Your task to perform on an android device: open chrome privacy settings Image 0: 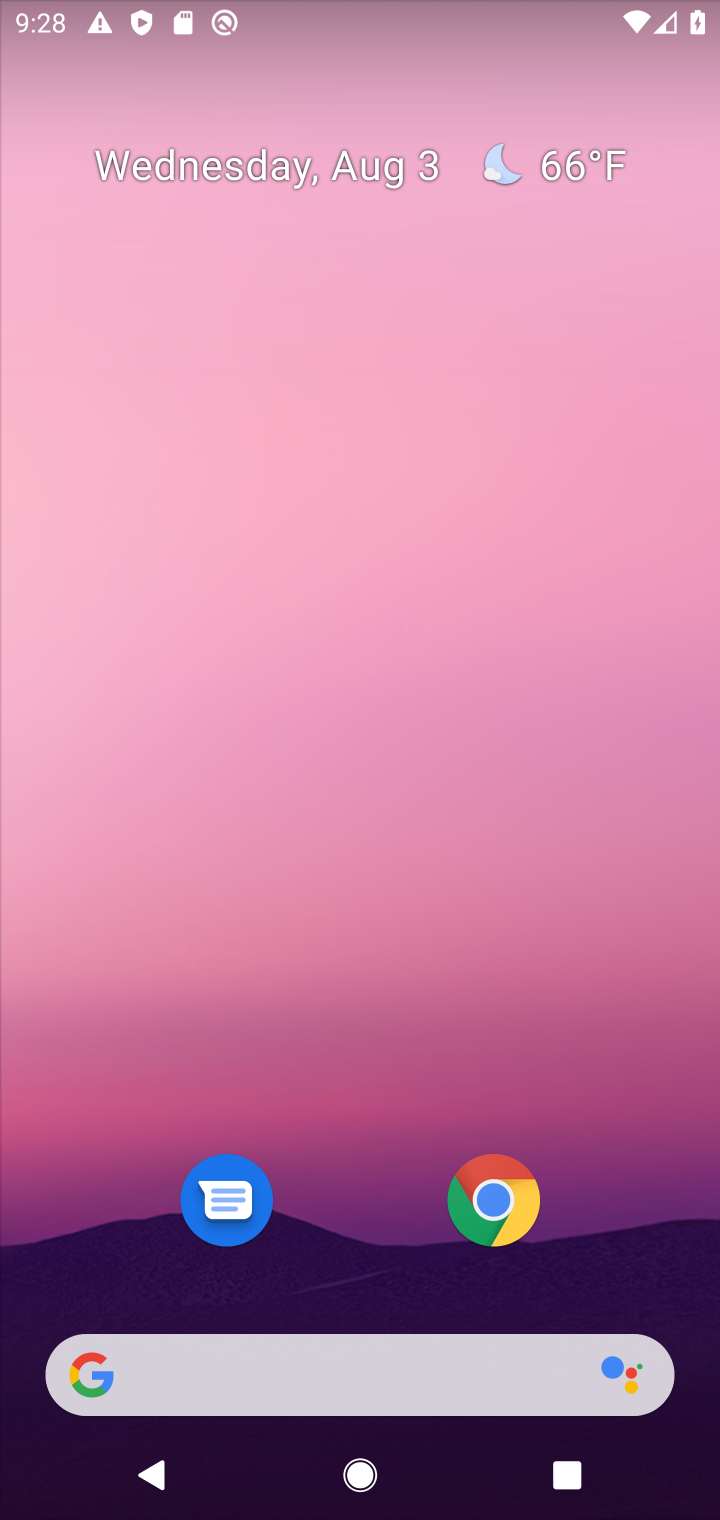
Step 0: click (398, 1335)
Your task to perform on an android device: open chrome privacy settings Image 1: 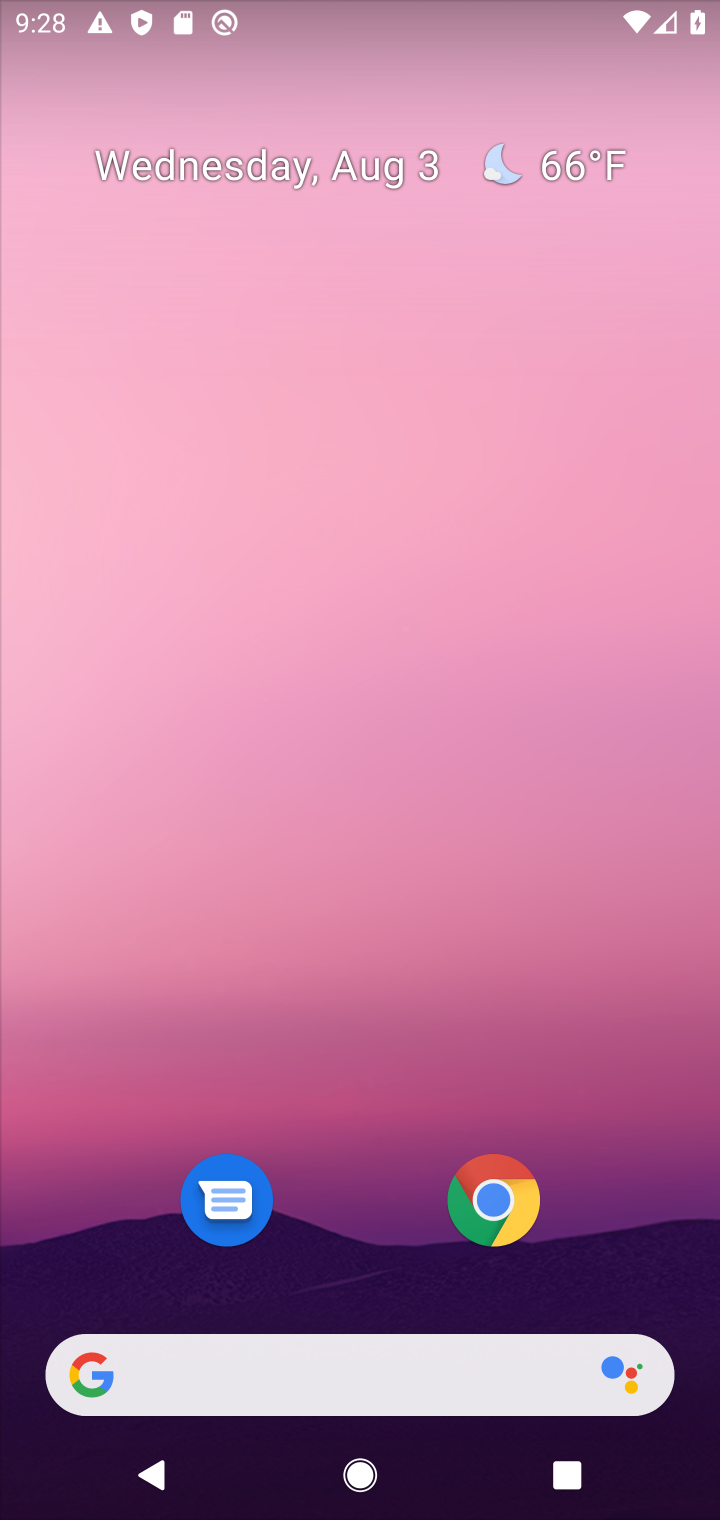
Step 1: drag from (398, 1335) to (381, 466)
Your task to perform on an android device: open chrome privacy settings Image 2: 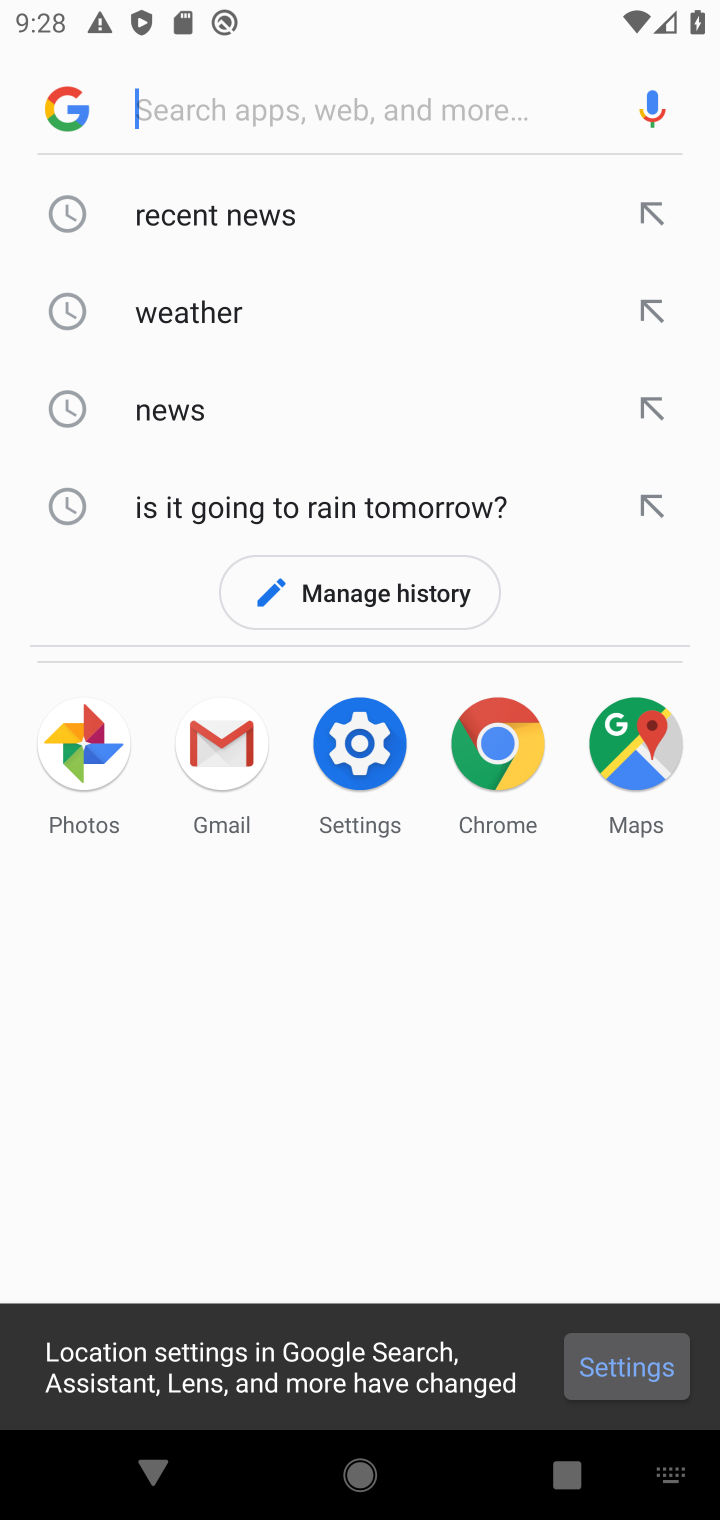
Step 2: click (496, 701)
Your task to perform on an android device: open chrome privacy settings Image 3: 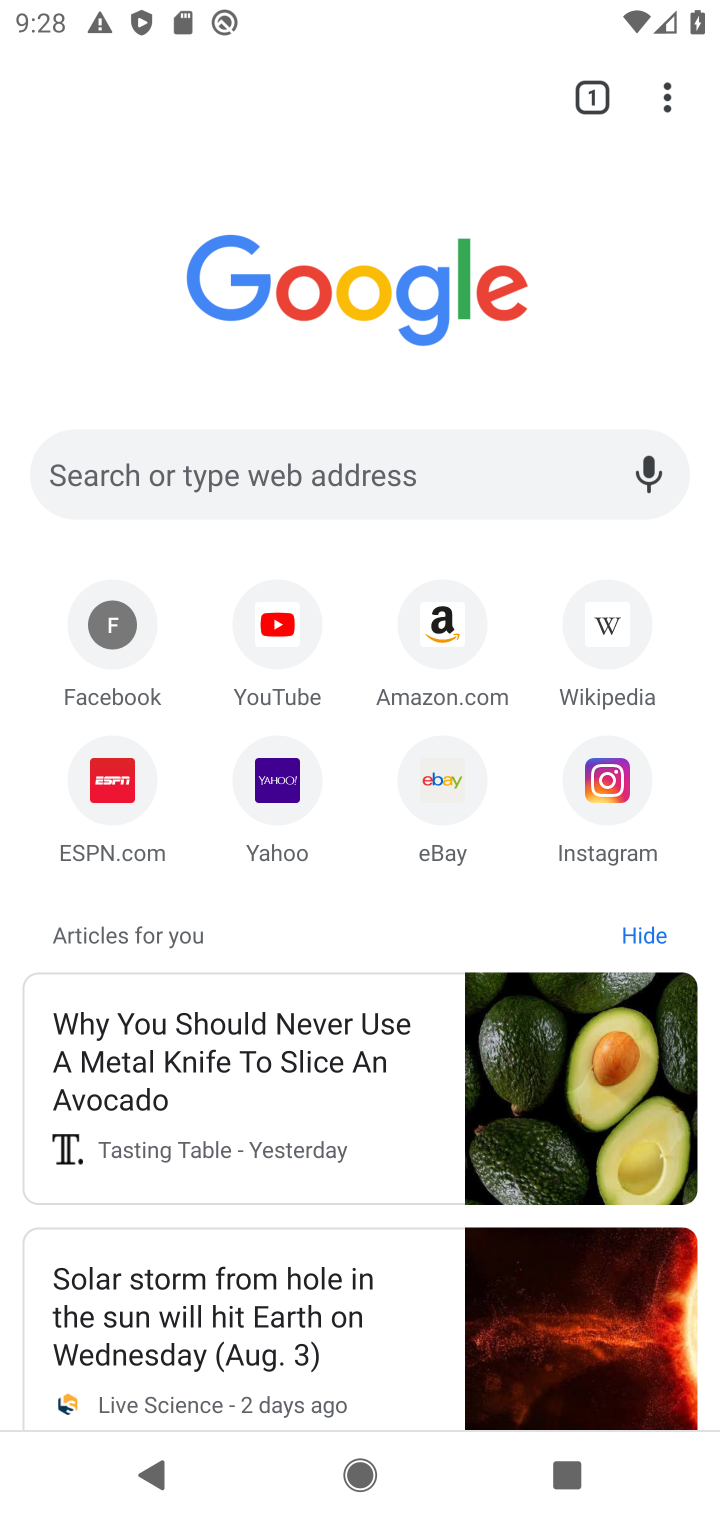
Step 3: click (669, 76)
Your task to perform on an android device: open chrome privacy settings Image 4: 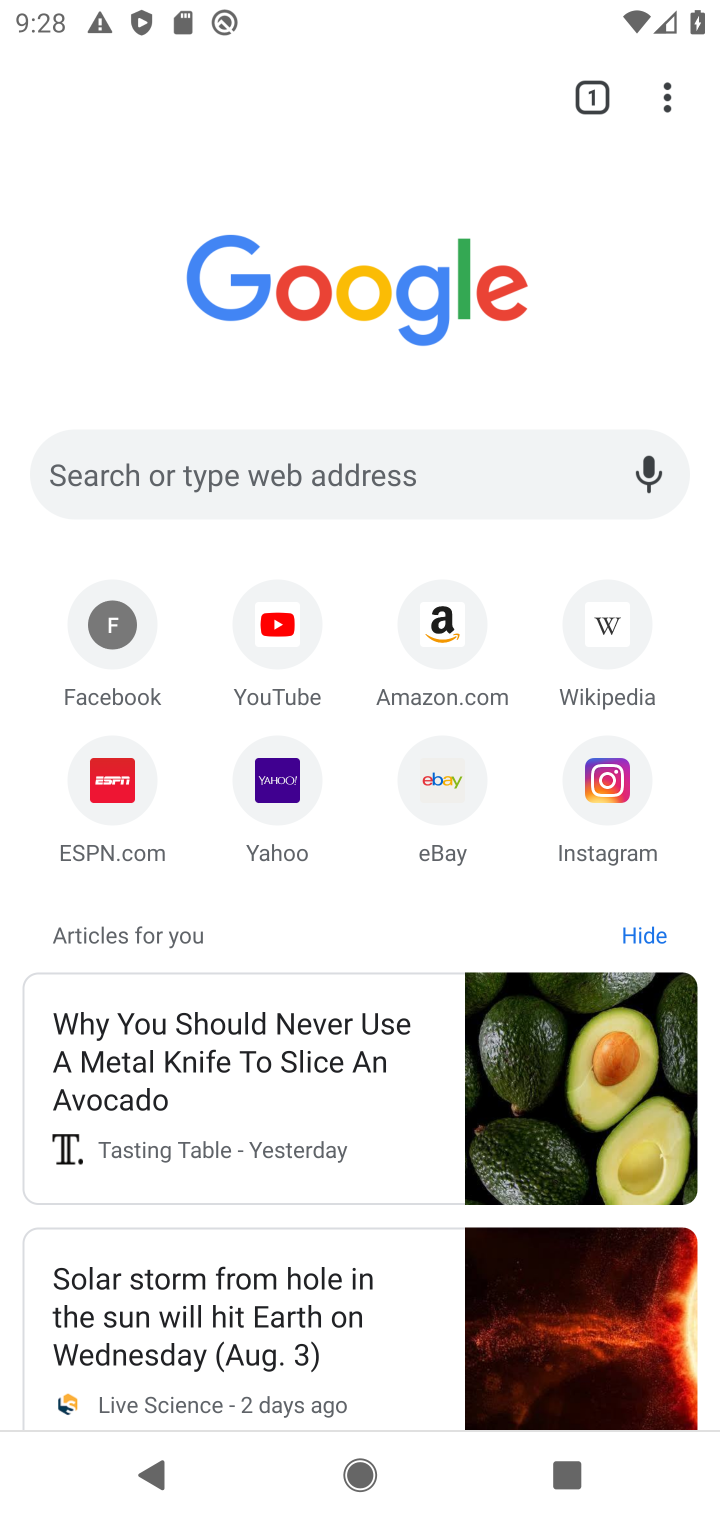
Step 4: click (669, 76)
Your task to perform on an android device: open chrome privacy settings Image 5: 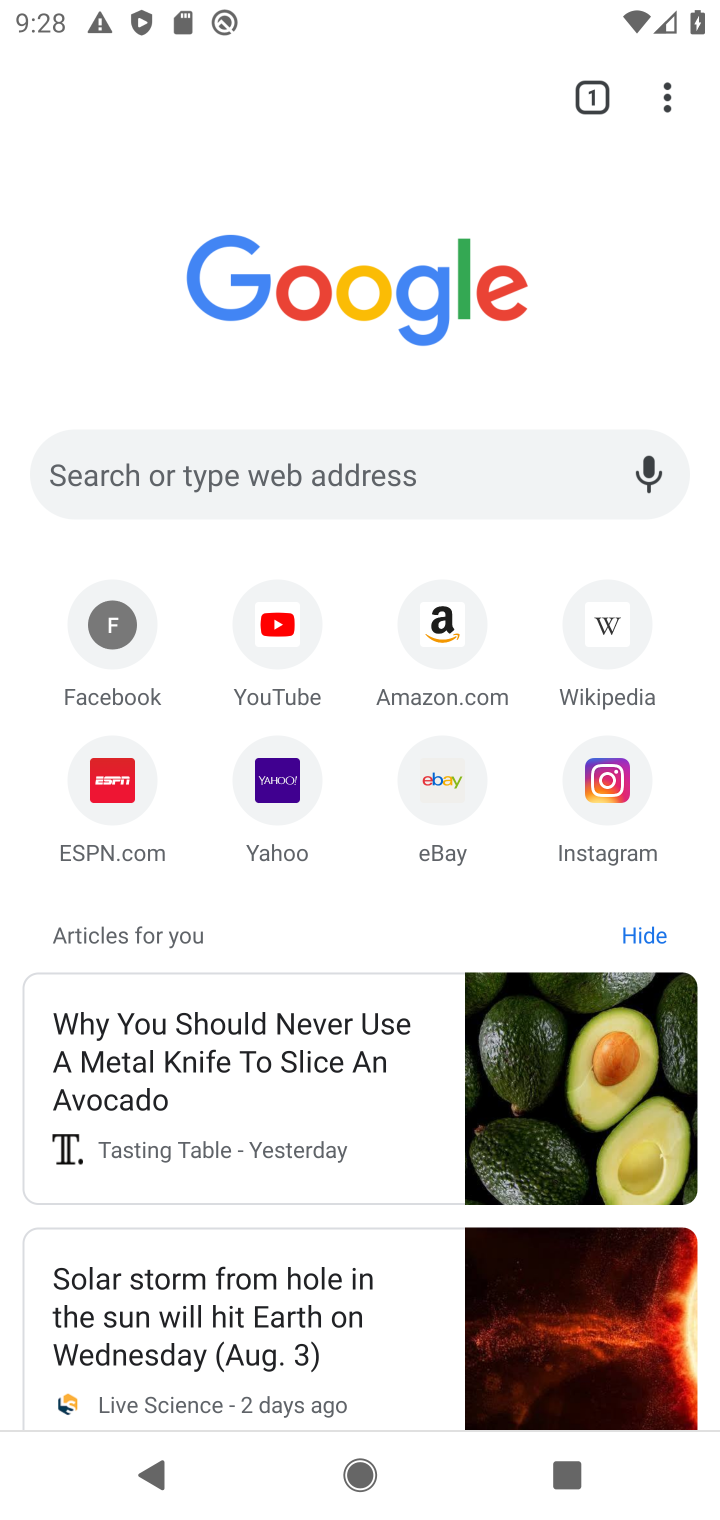
Step 5: click (660, 91)
Your task to perform on an android device: open chrome privacy settings Image 6: 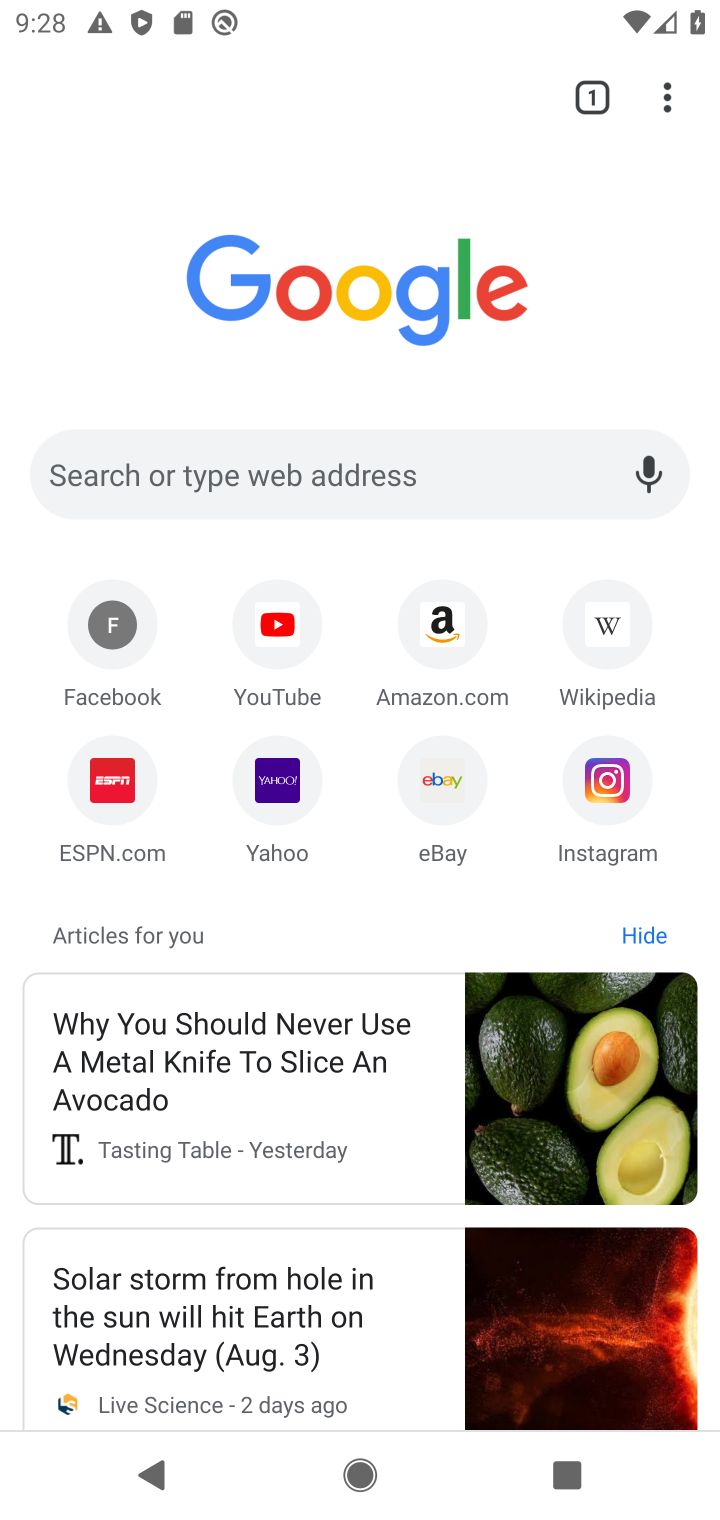
Step 6: click (679, 91)
Your task to perform on an android device: open chrome privacy settings Image 7: 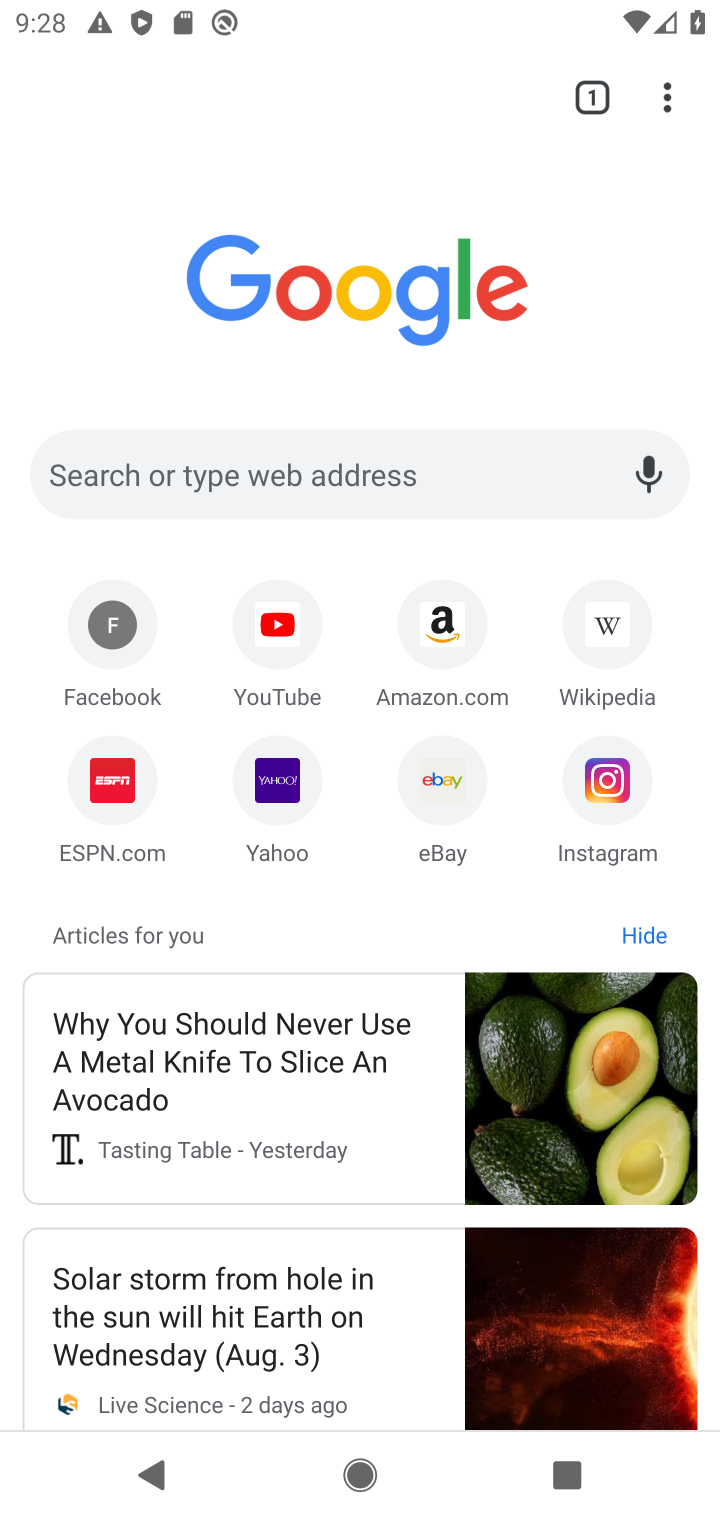
Step 7: click (663, 91)
Your task to perform on an android device: open chrome privacy settings Image 8: 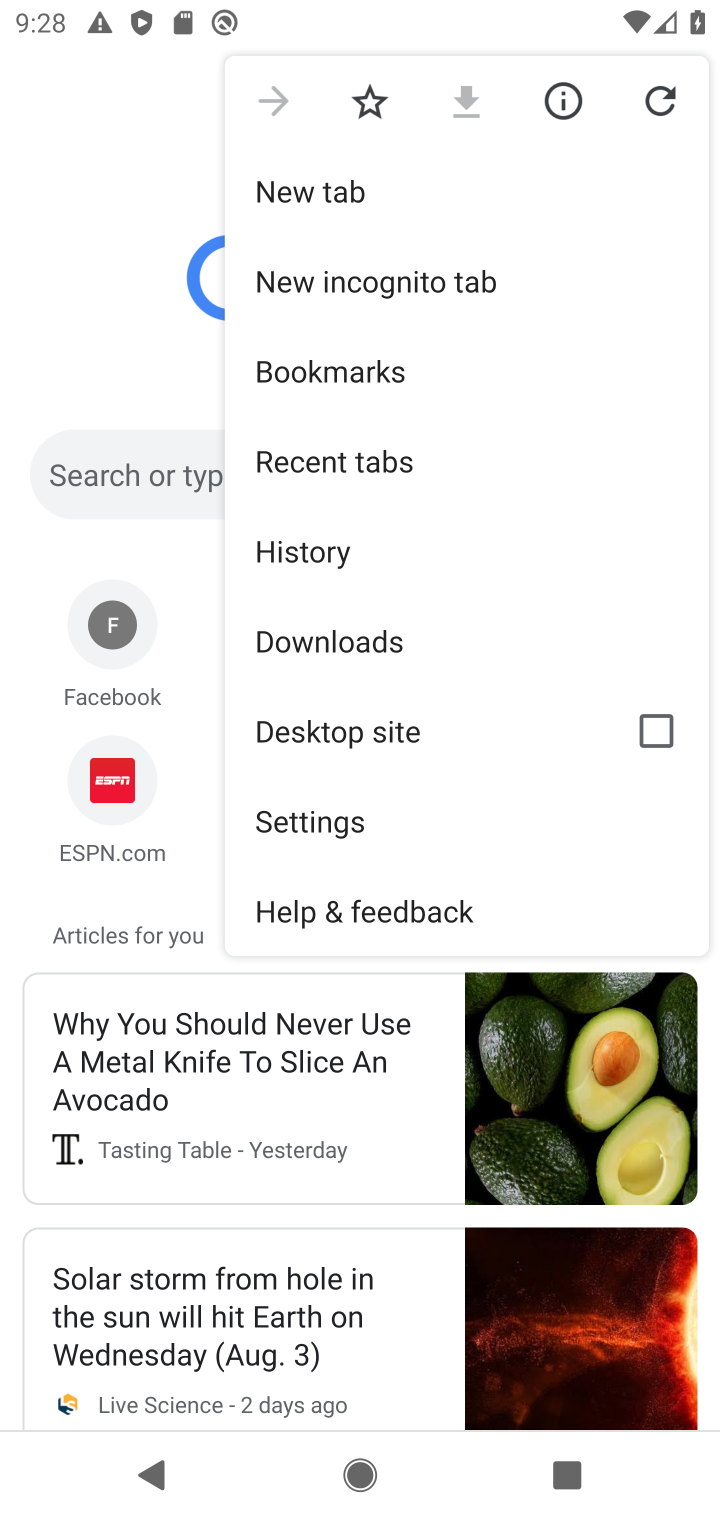
Step 8: click (303, 806)
Your task to perform on an android device: open chrome privacy settings Image 9: 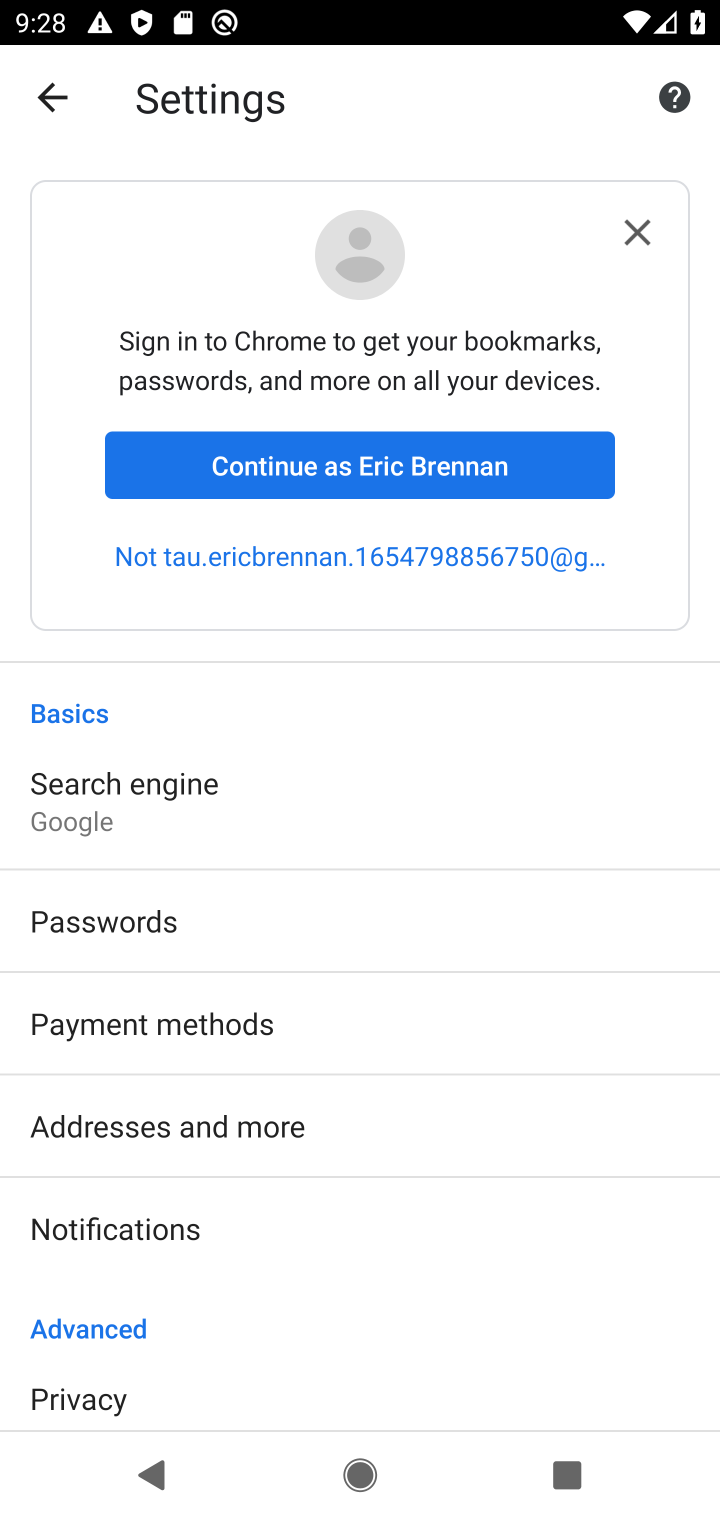
Step 9: click (271, 1394)
Your task to perform on an android device: open chrome privacy settings Image 10: 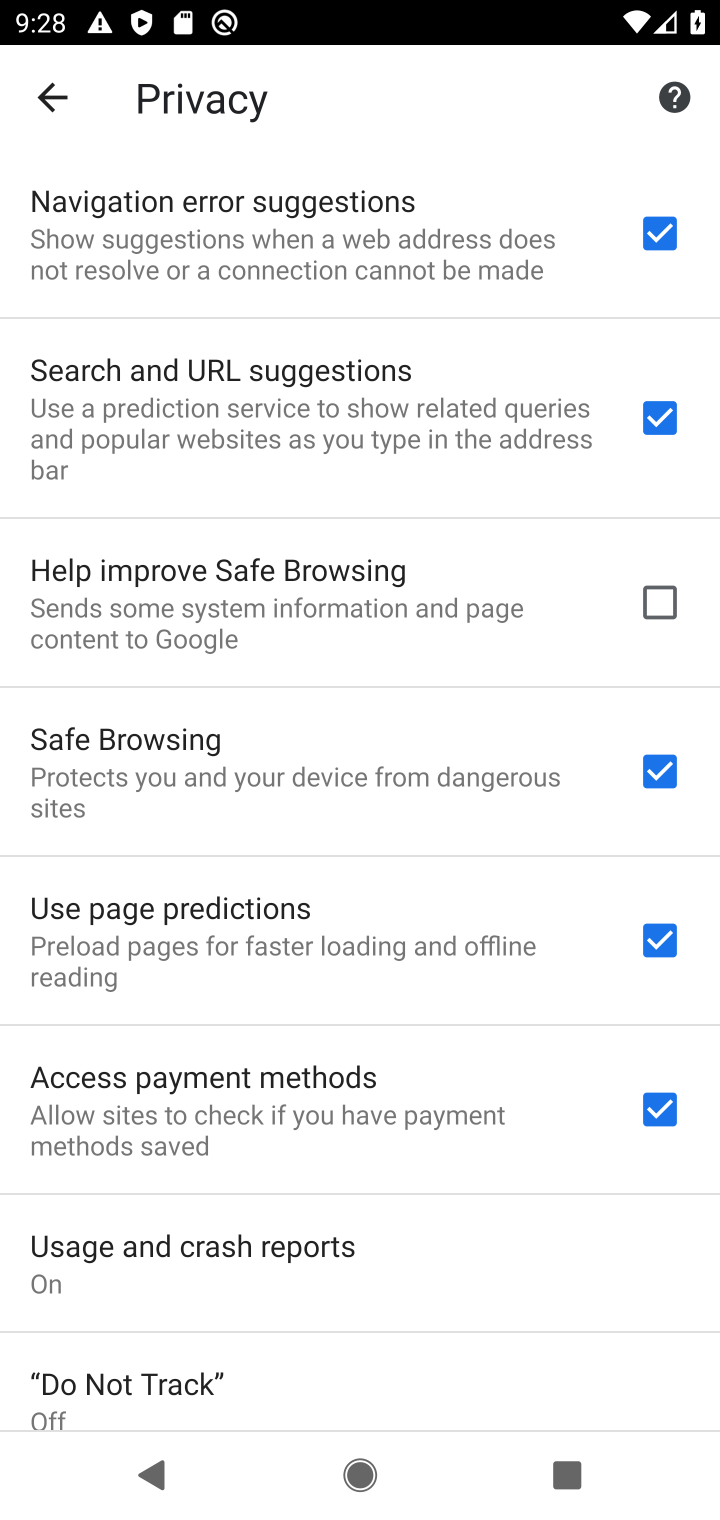
Step 10: task complete